Your task to perform on an android device: Turn off the flashlight Image 0: 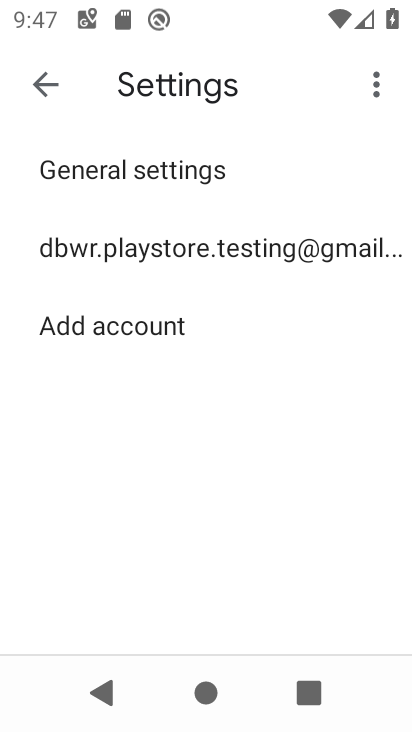
Step 0: press home button
Your task to perform on an android device: Turn off the flashlight Image 1: 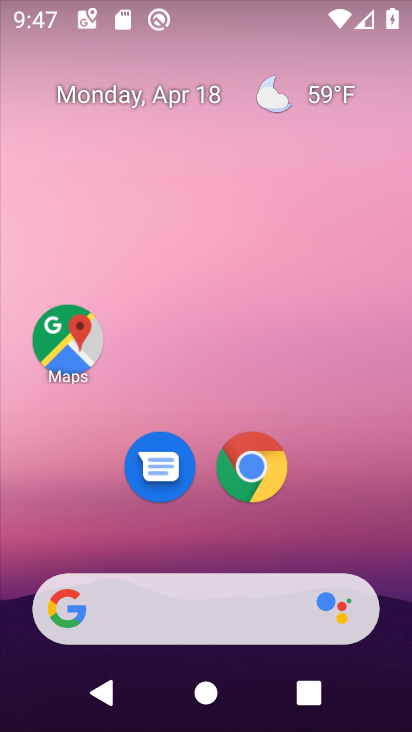
Step 1: drag from (181, 481) to (239, 100)
Your task to perform on an android device: Turn off the flashlight Image 2: 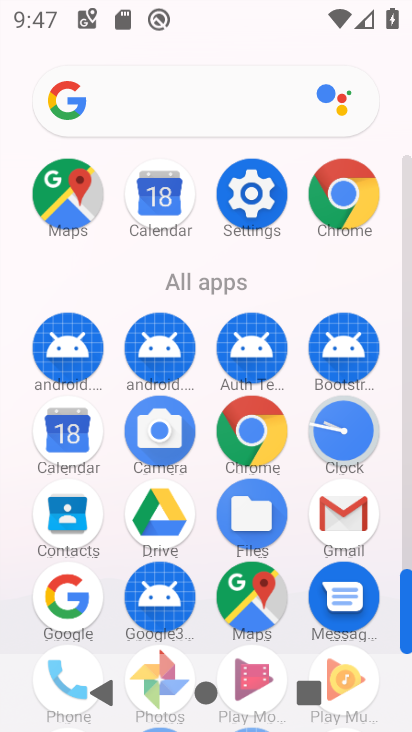
Step 2: click (244, 194)
Your task to perform on an android device: Turn off the flashlight Image 3: 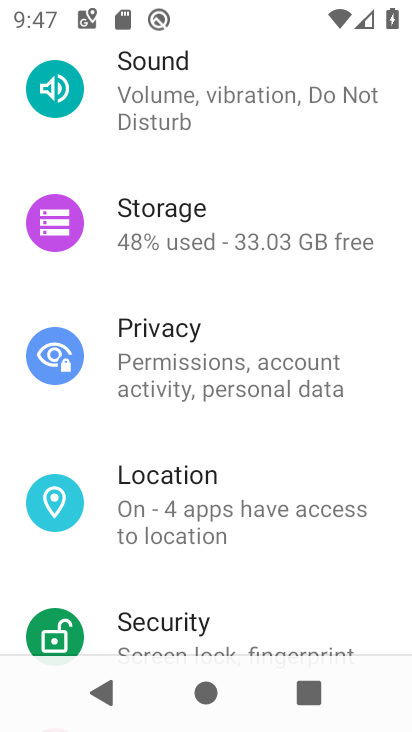
Step 3: drag from (211, 173) to (218, 593)
Your task to perform on an android device: Turn off the flashlight Image 4: 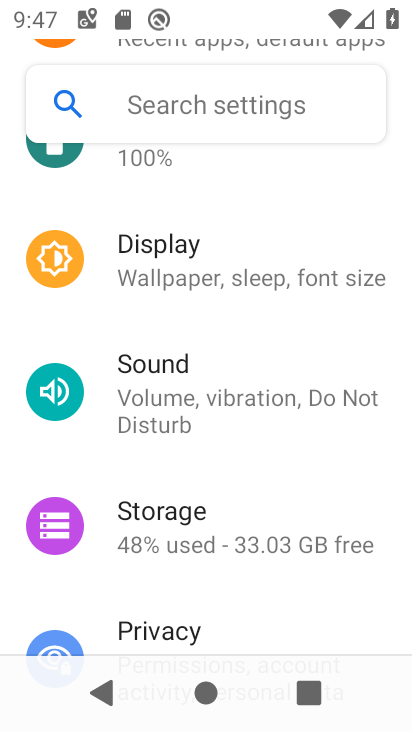
Step 4: click (168, 118)
Your task to perform on an android device: Turn off the flashlight Image 5: 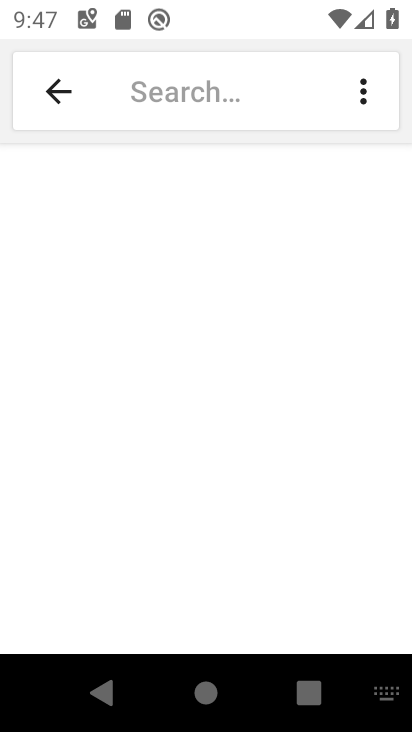
Step 5: type "flashlight"
Your task to perform on an android device: Turn off the flashlight Image 6: 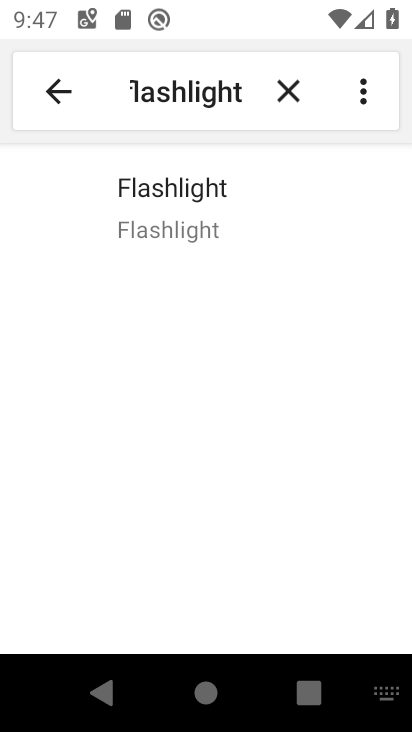
Step 6: click (187, 196)
Your task to perform on an android device: Turn off the flashlight Image 7: 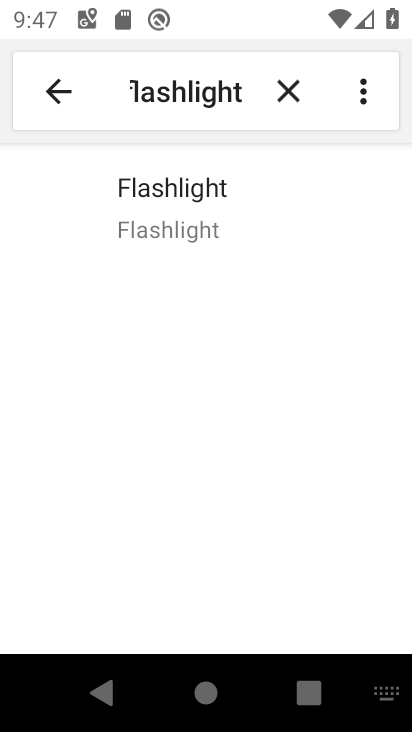
Step 7: task complete